Your task to perform on an android device: What's the news in Vietnam? Image 0: 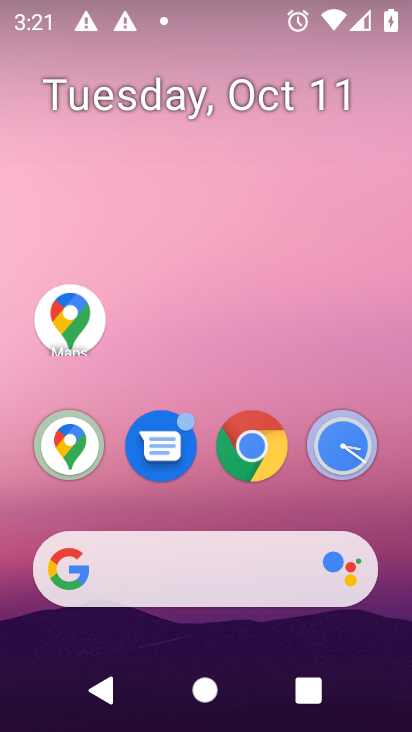
Step 0: click (259, 451)
Your task to perform on an android device: What's the news in Vietnam? Image 1: 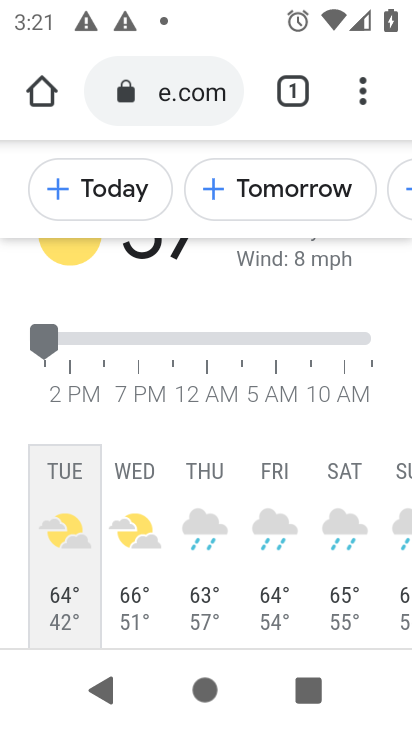
Step 1: click (167, 101)
Your task to perform on an android device: What's the news in Vietnam? Image 2: 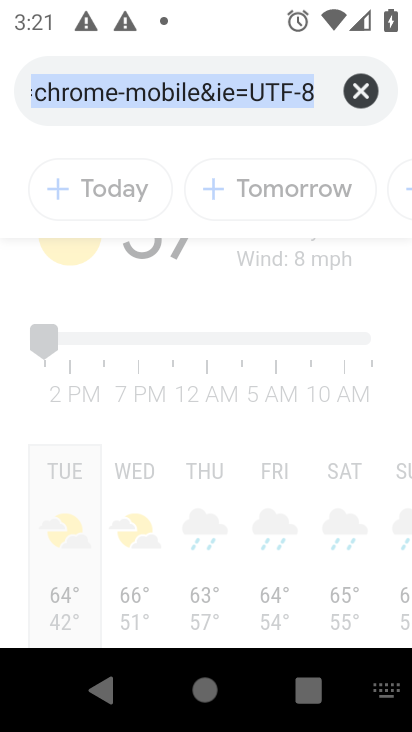
Step 2: click (365, 85)
Your task to perform on an android device: What's the news in Vietnam? Image 3: 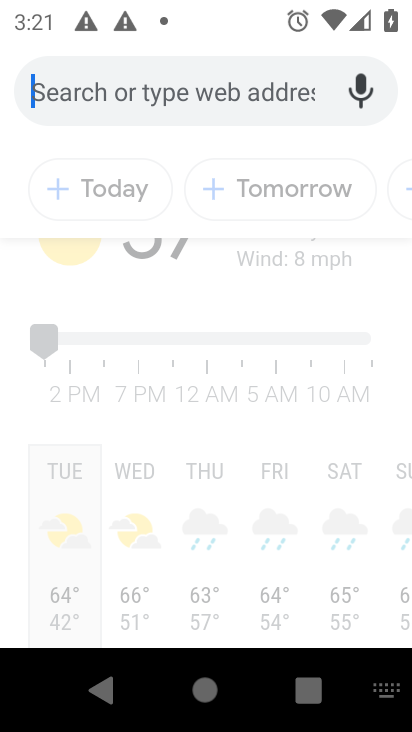
Step 3: type "Vietnam"
Your task to perform on an android device: What's the news in Vietnam? Image 4: 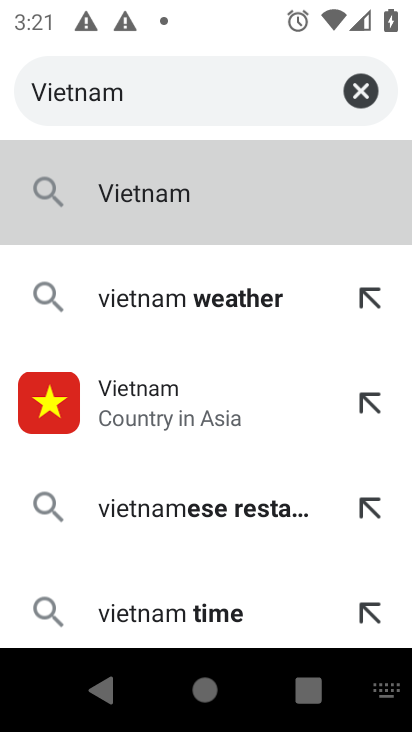
Step 4: click (135, 425)
Your task to perform on an android device: What's the news in Vietnam? Image 5: 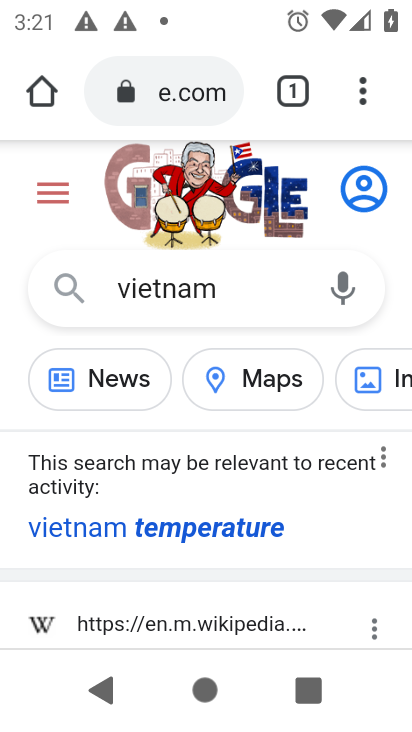
Step 5: click (110, 377)
Your task to perform on an android device: What's the news in Vietnam? Image 6: 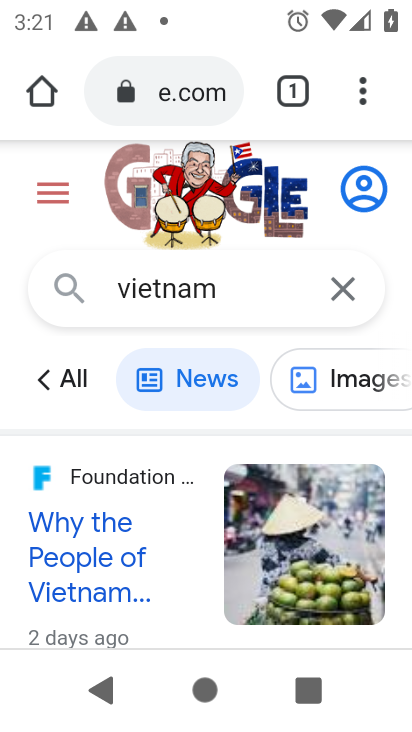
Step 6: drag from (160, 521) to (172, 301)
Your task to perform on an android device: What's the news in Vietnam? Image 7: 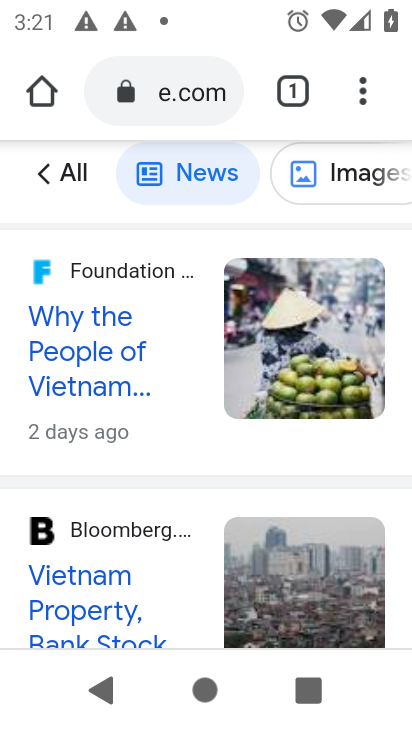
Step 7: drag from (143, 541) to (143, 395)
Your task to perform on an android device: What's the news in Vietnam? Image 8: 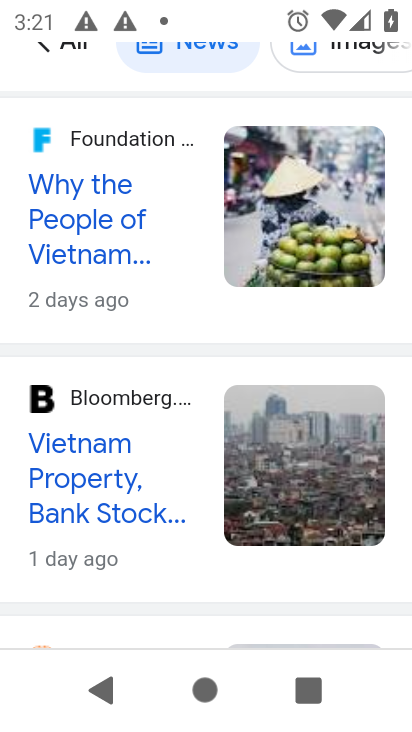
Step 8: click (102, 234)
Your task to perform on an android device: What's the news in Vietnam? Image 9: 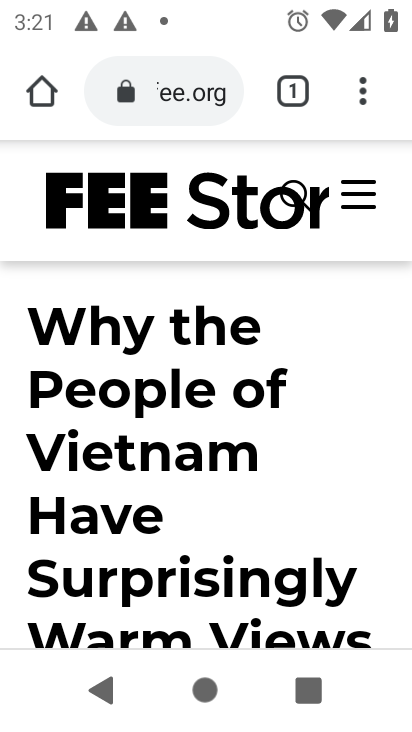
Step 9: task complete